Your task to perform on an android device: Check the weather Image 0: 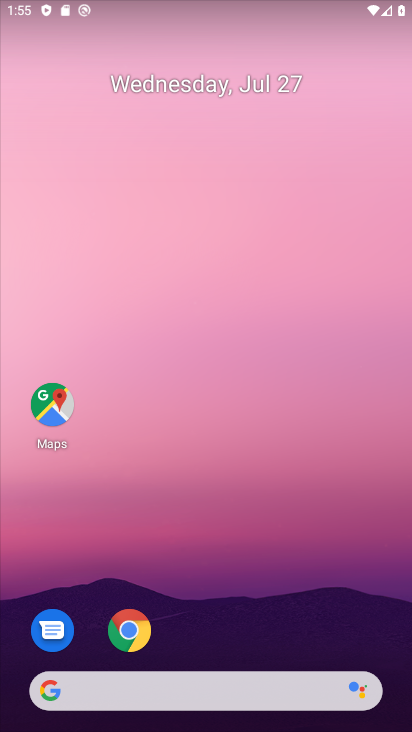
Step 0: click (218, 685)
Your task to perform on an android device: Check the weather Image 1: 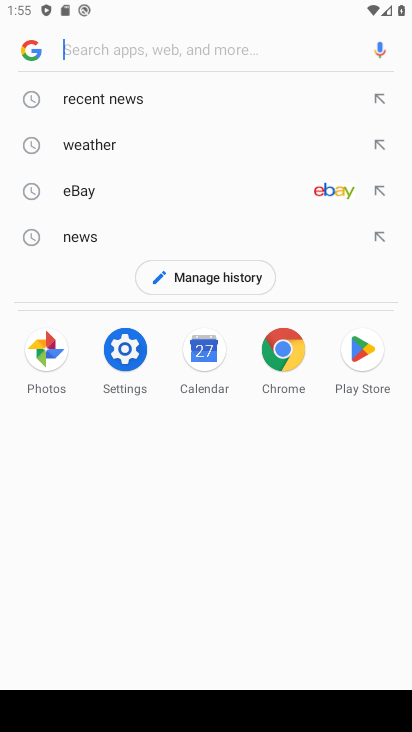
Step 1: click (141, 136)
Your task to perform on an android device: Check the weather Image 2: 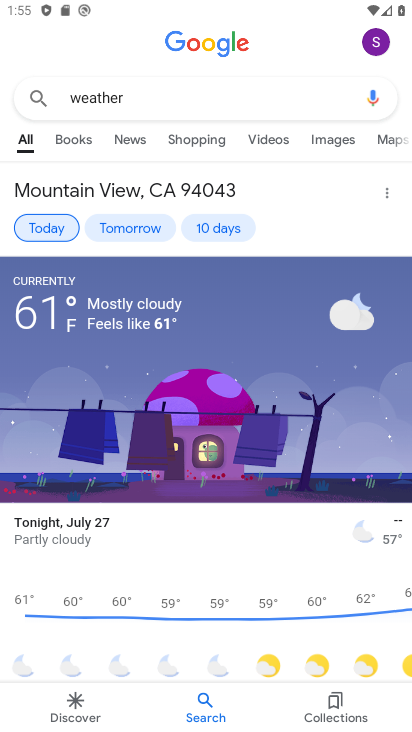
Step 2: task complete